Your task to perform on an android device: Go to internet settings Image 0: 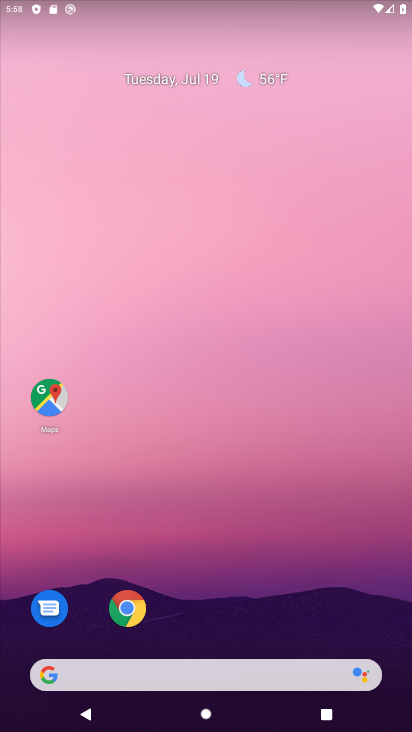
Step 0: press home button
Your task to perform on an android device: Go to internet settings Image 1: 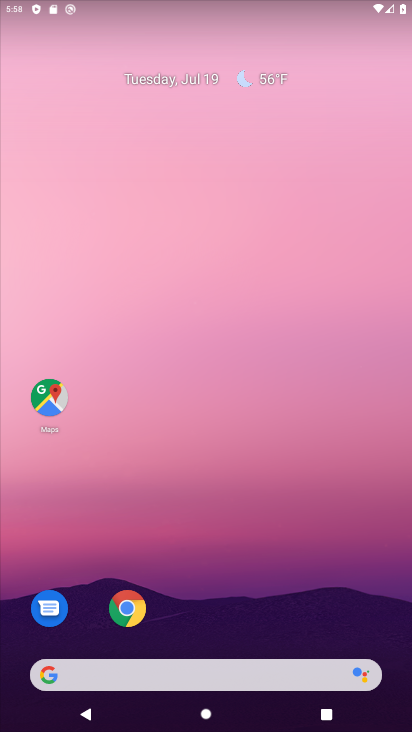
Step 1: click (226, 8)
Your task to perform on an android device: Go to internet settings Image 2: 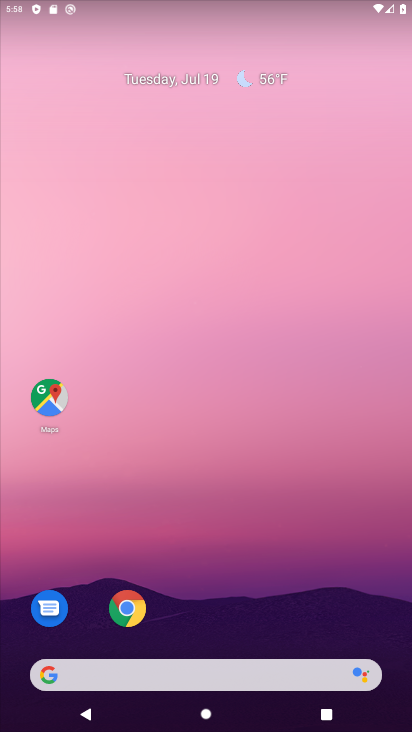
Step 2: drag from (225, 640) to (232, 20)
Your task to perform on an android device: Go to internet settings Image 3: 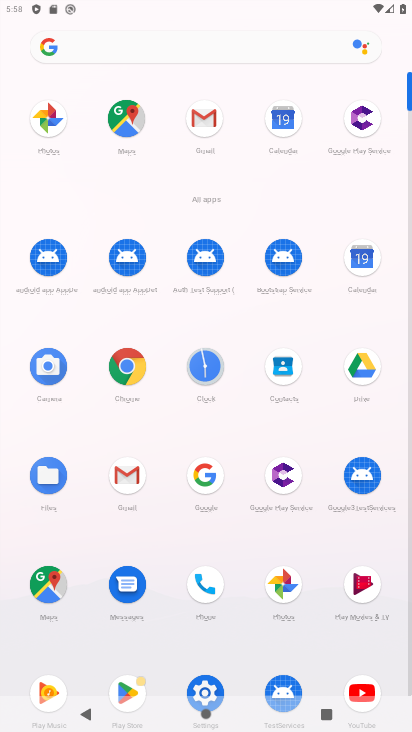
Step 3: click (204, 681)
Your task to perform on an android device: Go to internet settings Image 4: 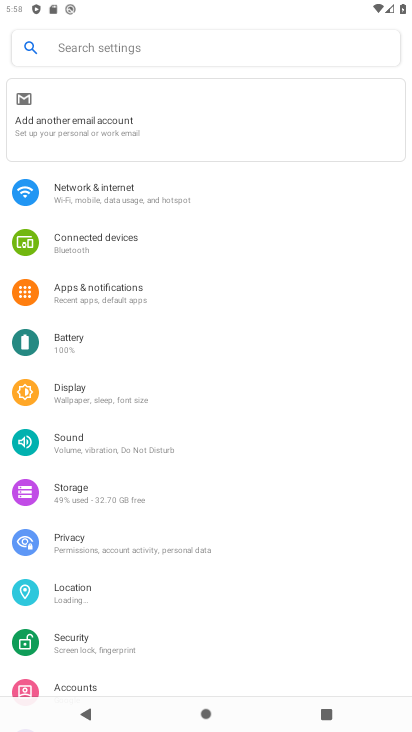
Step 4: click (162, 185)
Your task to perform on an android device: Go to internet settings Image 5: 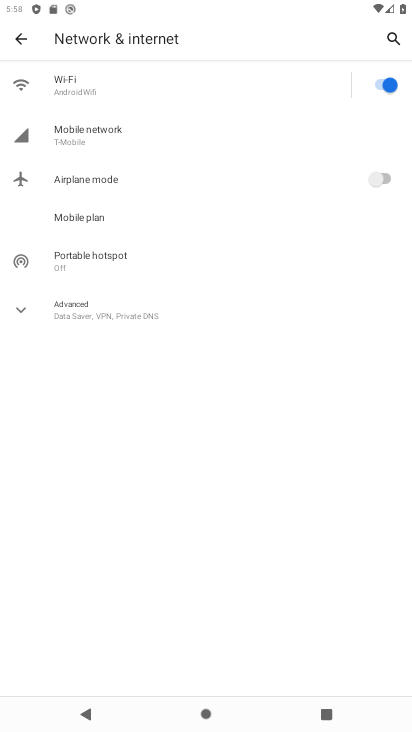
Step 5: click (23, 304)
Your task to perform on an android device: Go to internet settings Image 6: 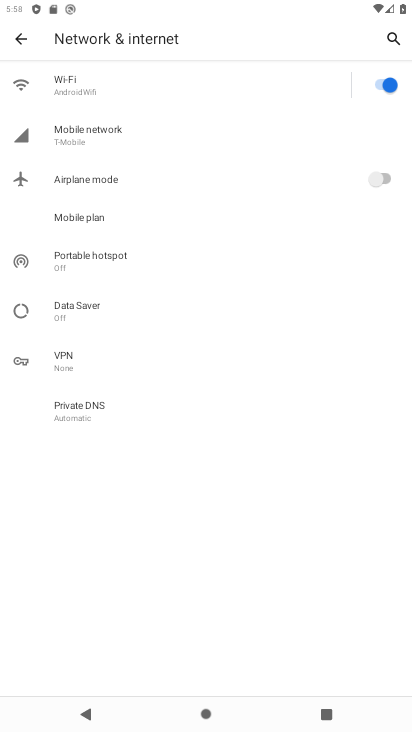
Step 6: task complete